Your task to perform on an android device: change timer sound Image 0: 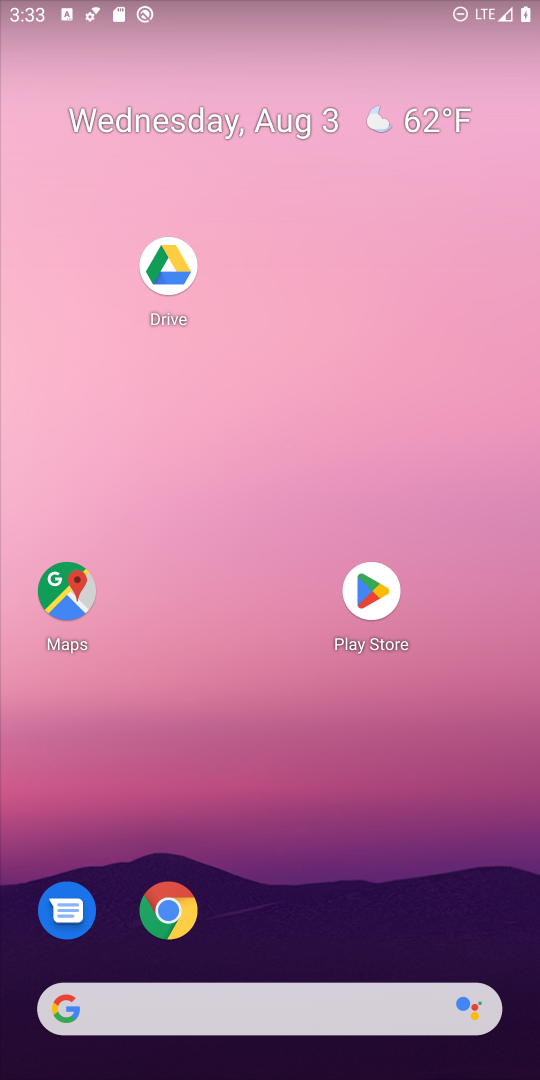
Step 0: drag from (428, 800) to (381, 71)
Your task to perform on an android device: change timer sound Image 1: 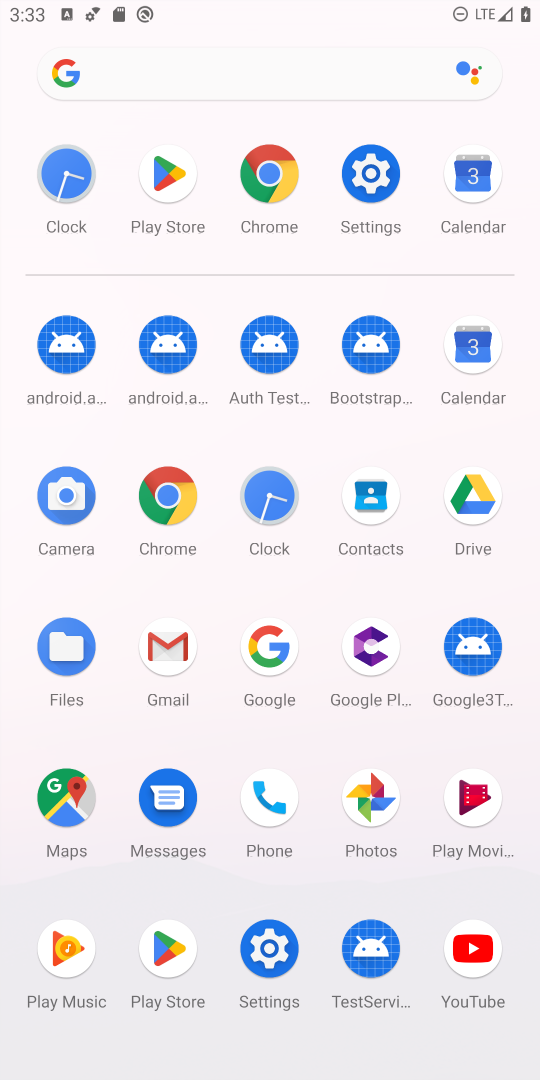
Step 1: click (278, 504)
Your task to perform on an android device: change timer sound Image 2: 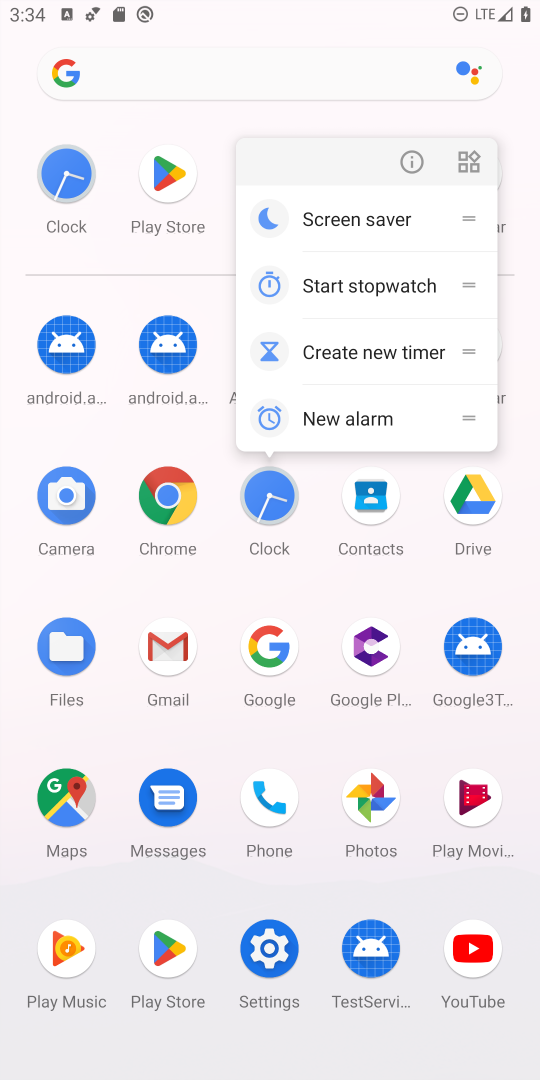
Step 2: click (255, 507)
Your task to perform on an android device: change timer sound Image 3: 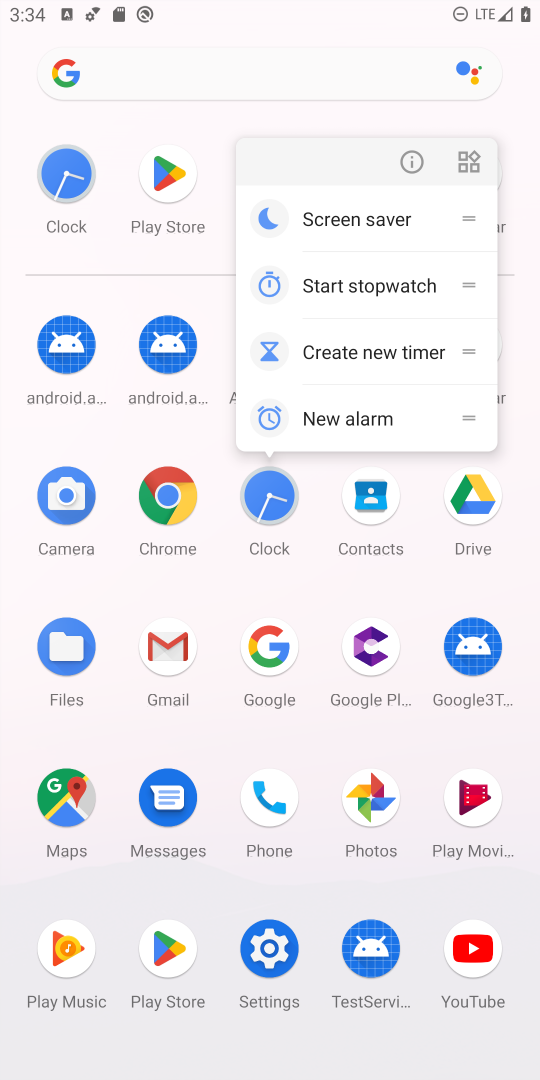
Step 3: click (270, 501)
Your task to perform on an android device: change timer sound Image 4: 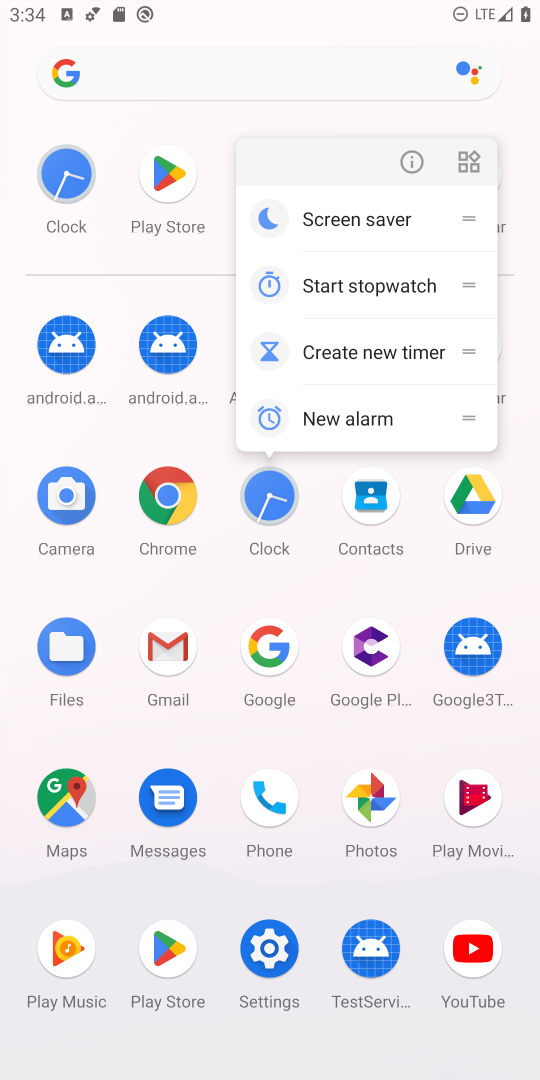
Step 4: click (271, 501)
Your task to perform on an android device: change timer sound Image 5: 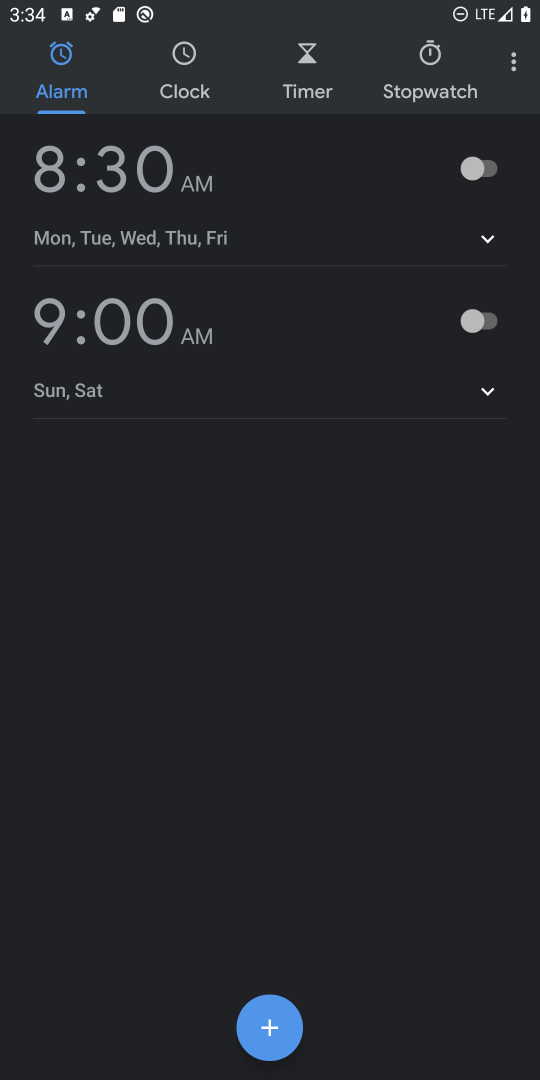
Step 5: click (524, 57)
Your task to perform on an android device: change timer sound Image 6: 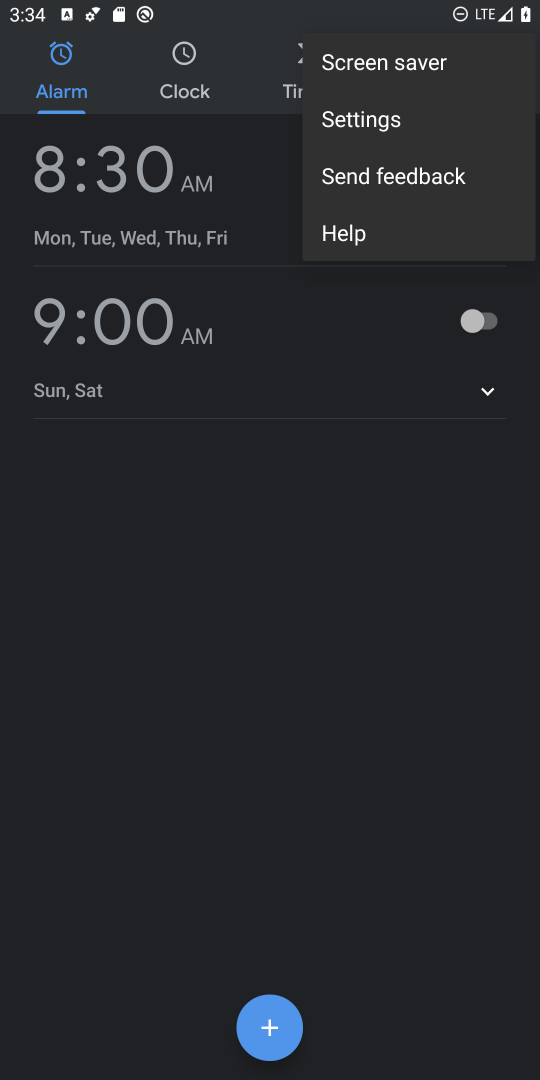
Step 6: click (414, 129)
Your task to perform on an android device: change timer sound Image 7: 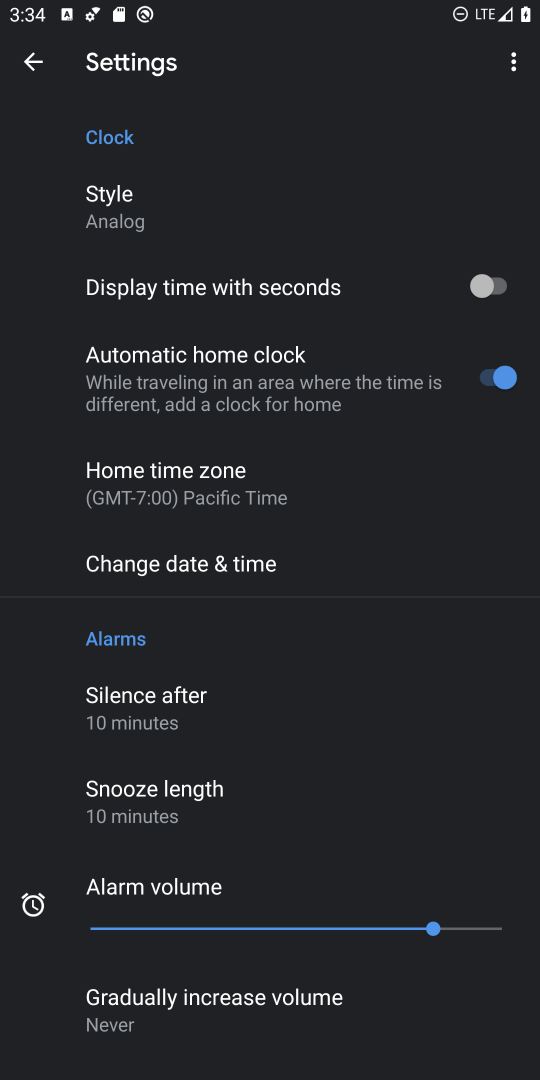
Step 7: drag from (243, 900) to (238, 195)
Your task to perform on an android device: change timer sound Image 8: 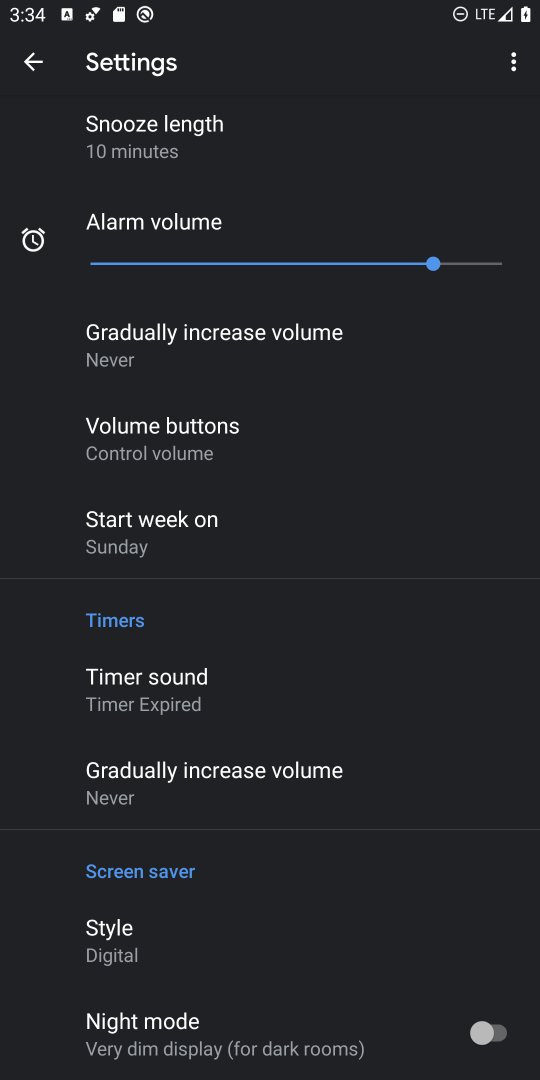
Step 8: click (186, 700)
Your task to perform on an android device: change timer sound Image 9: 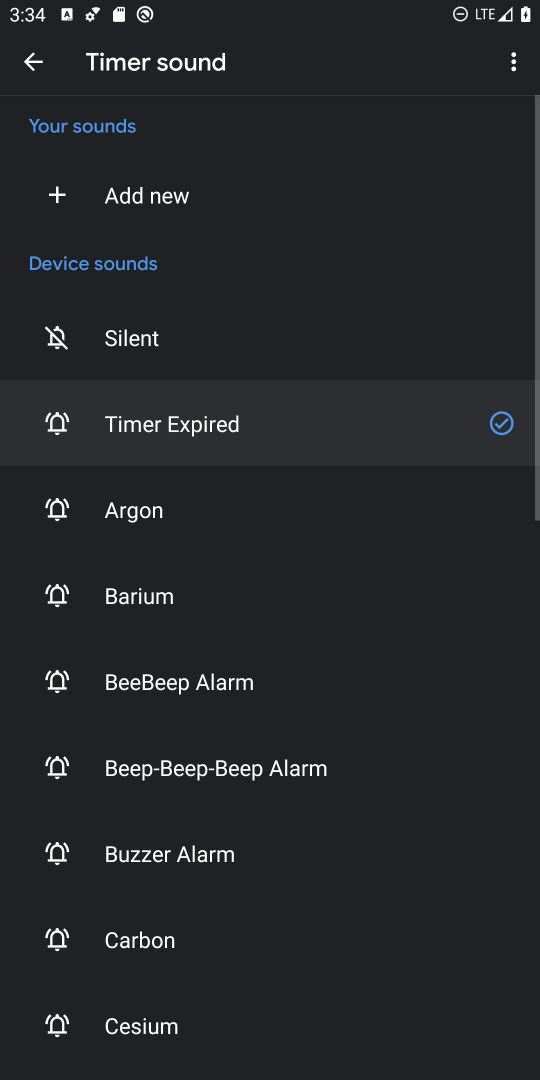
Step 9: click (186, 523)
Your task to perform on an android device: change timer sound Image 10: 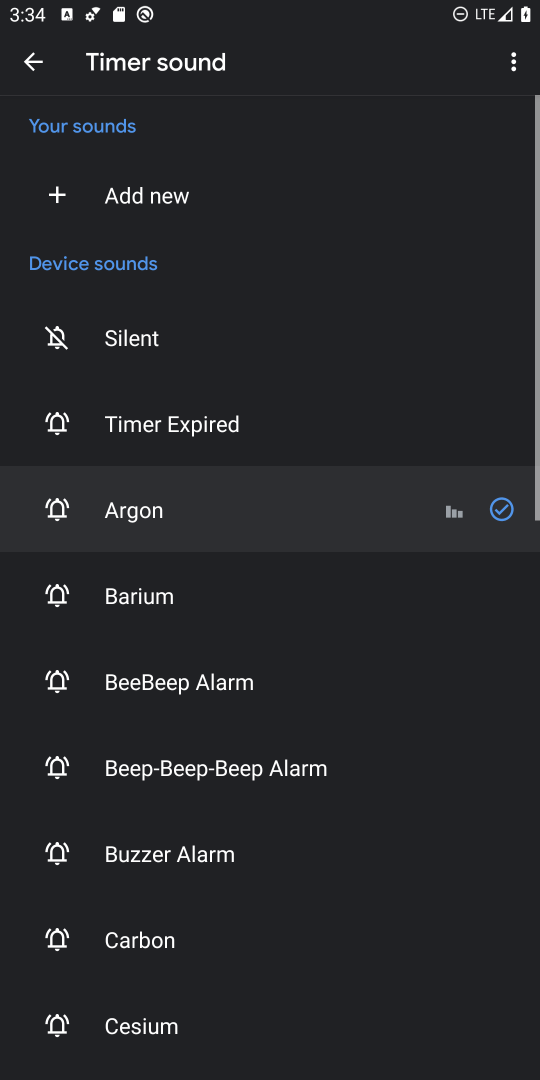
Step 10: task complete